Your task to perform on an android device: Open calendar and show me the first week of next month Image 0: 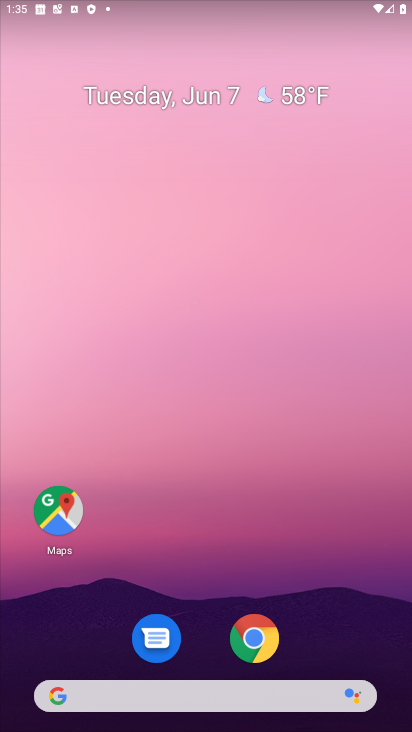
Step 0: drag from (212, 659) to (316, 159)
Your task to perform on an android device: Open calendar and show me the first week of next month Image 1: 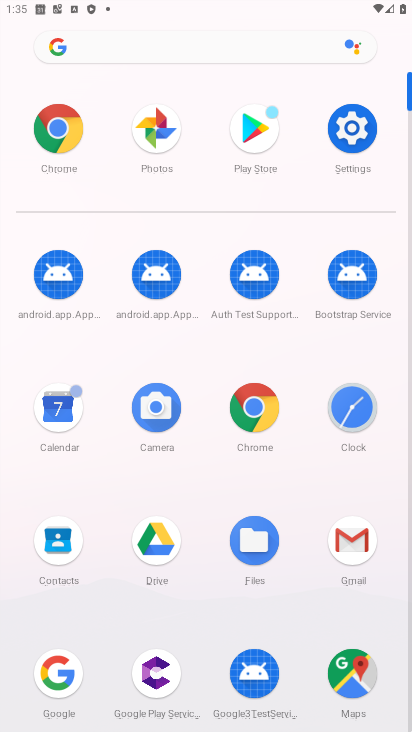
Step 1: click (61, 412)
Your task to perform on an android device: Open calendar and show me the first week of next month Image 2: 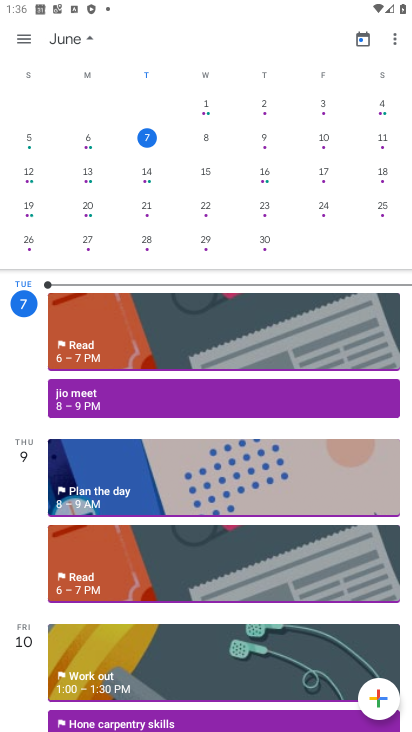
Step 2: drag from (387, 190) to (0, 257)
Your task to perform on an android device: Open calendar and show me the first week of next month Image 3: 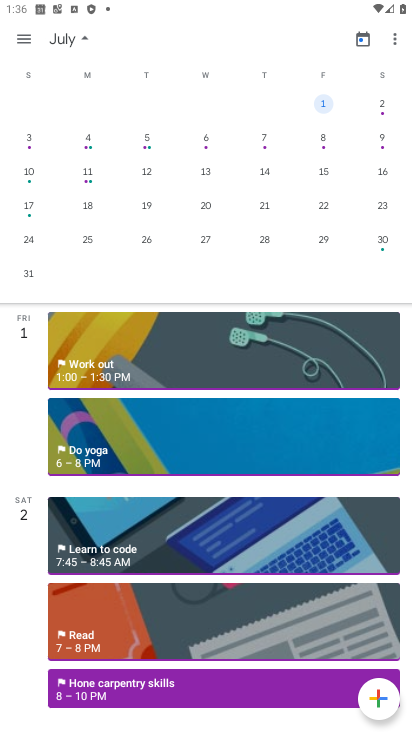
Step 3: click (374, 107)
Your task to perform on an android device: Open calendar and show me the first week of next month Image 4: 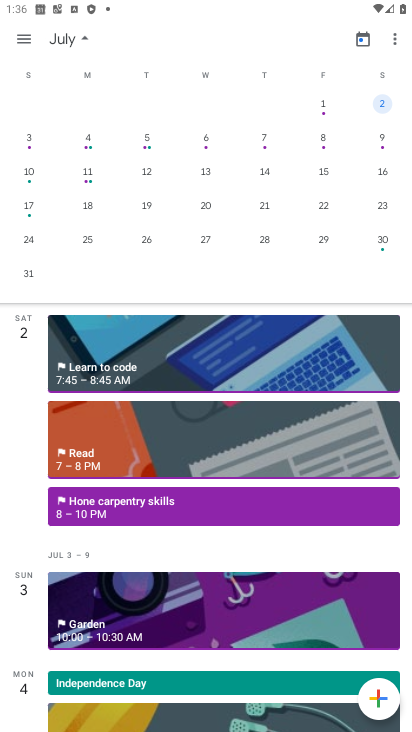
Step 4: task complete